Your task to perform on an android device: turn on translation in the chrome app Image 0: 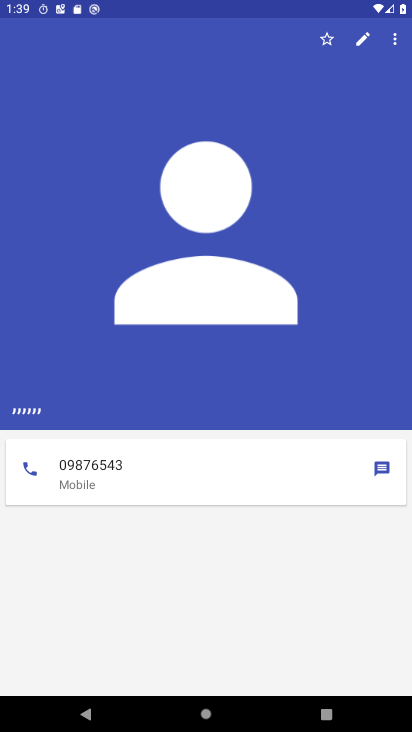
Step 0: press home button
Your task to perform on an android device: turn on translation in the chrome app Image 1: 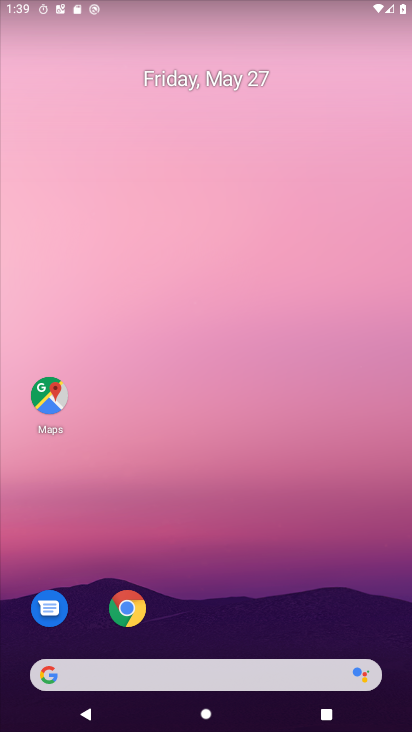
Step 1: click (123, 608)
Your task to perform on an android device: turn on translation in the chrome app Image 2: 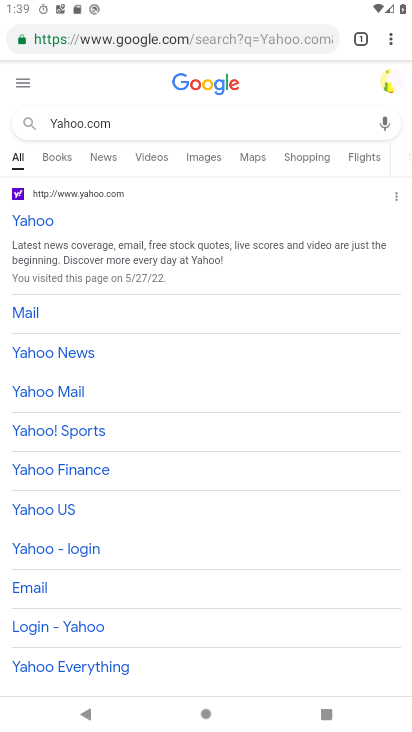
Step 2: click (387, 41)
Your task to perform on an android device: turn on translation in the chrome app Image 3: 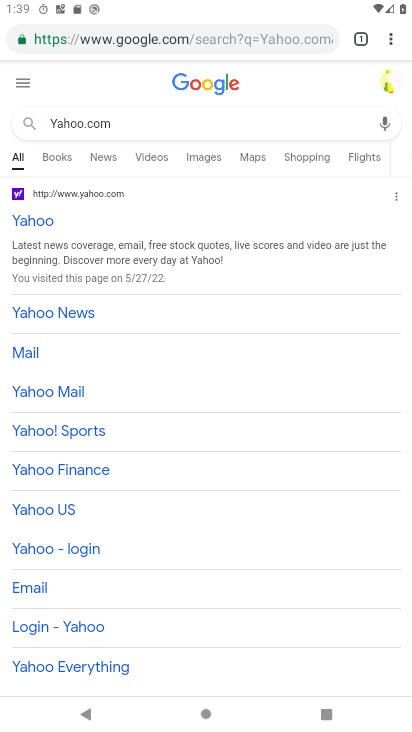
Step 3: click (389, 36)
Your task to perform on an android device: turn on translation in the chrome app Image 4: 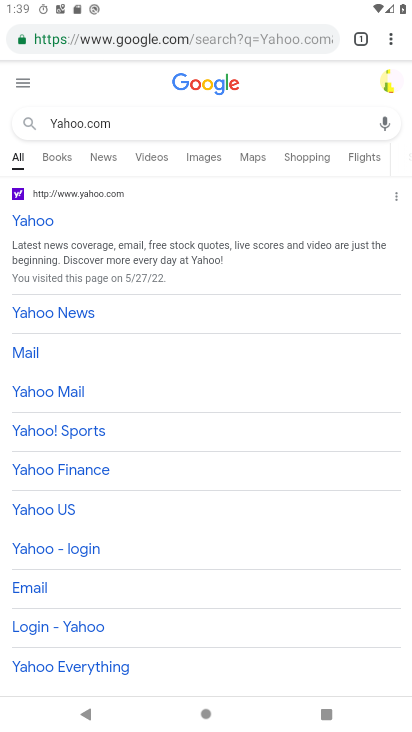
Step 4: click (389, 38)
Your task to perform on an android device: turn on translation in the chrome app Image 5: 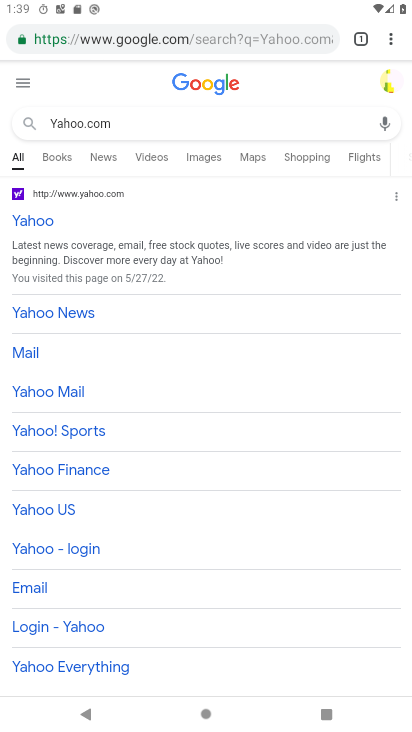
Step 5: click (389, 38)
Your task to perform on an android device: turn on translation in the chrome app Image 6: 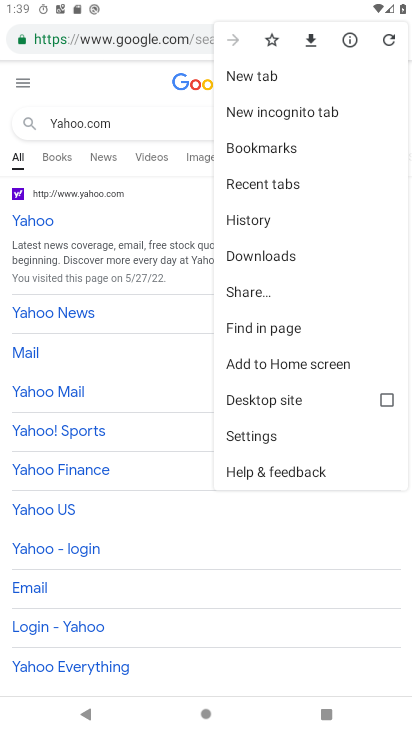
Step 6: click (243, 439)
Your task to perform on an android device: turn on translation in the chrome app Image 7: 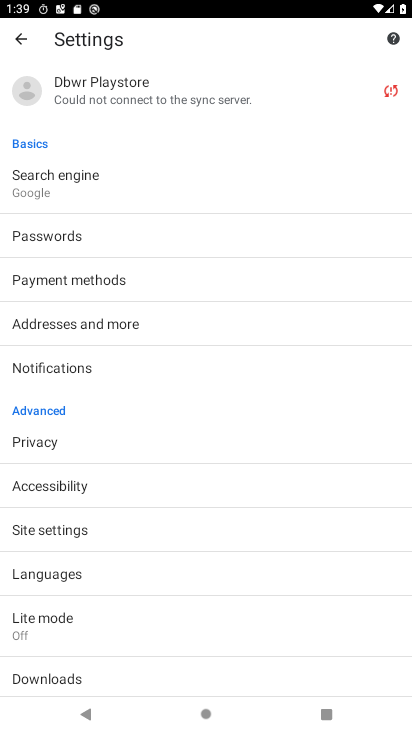
Step 7: click (104, 578)
Your task to perform on an android device: turn on translation in the chrome app Image 8: 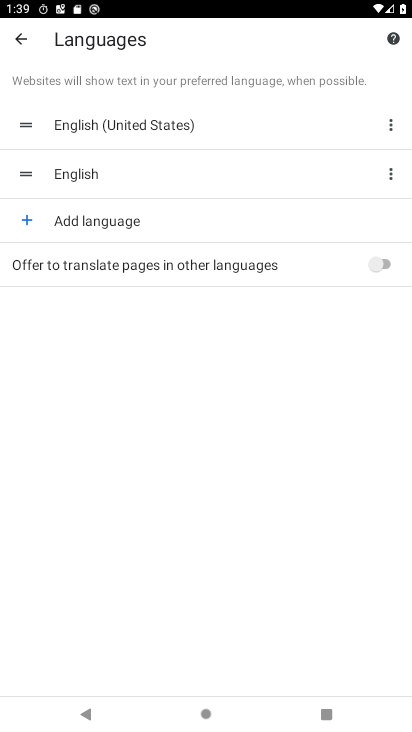
Step 8: click (380, 259)
Your task to perform on an android device: turn on translation in the chrome app Image 9: 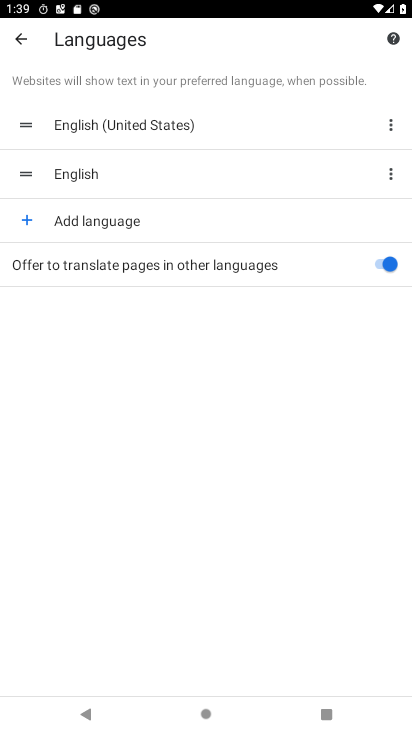
Step 9: task complete